Your task to perform on an android device: How far is the moon? Image 0: 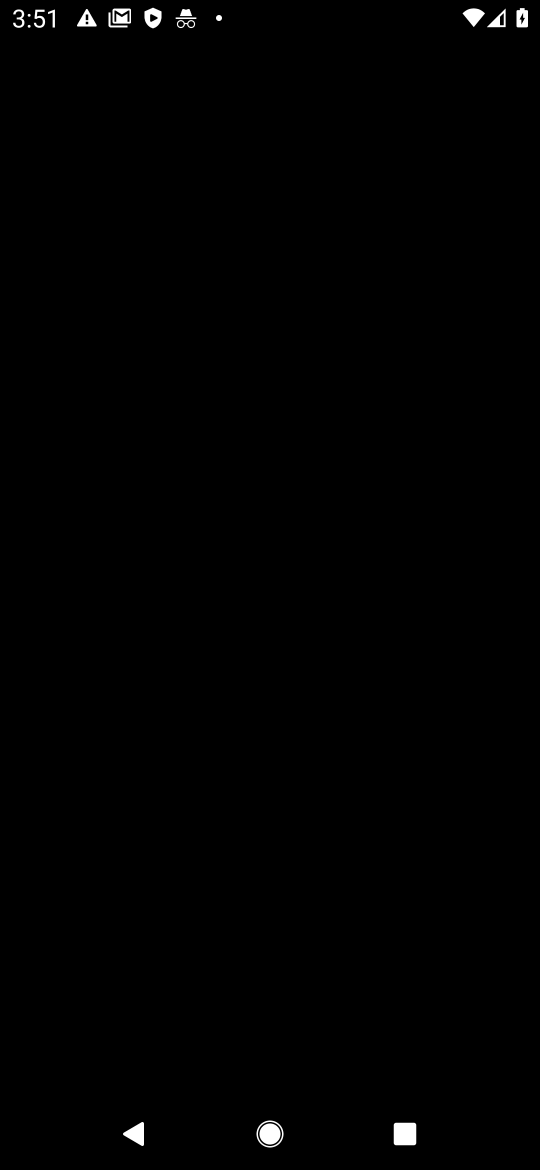
Step 0: press home button
Your task to perform on an android device: How far is the moon? Image 1: 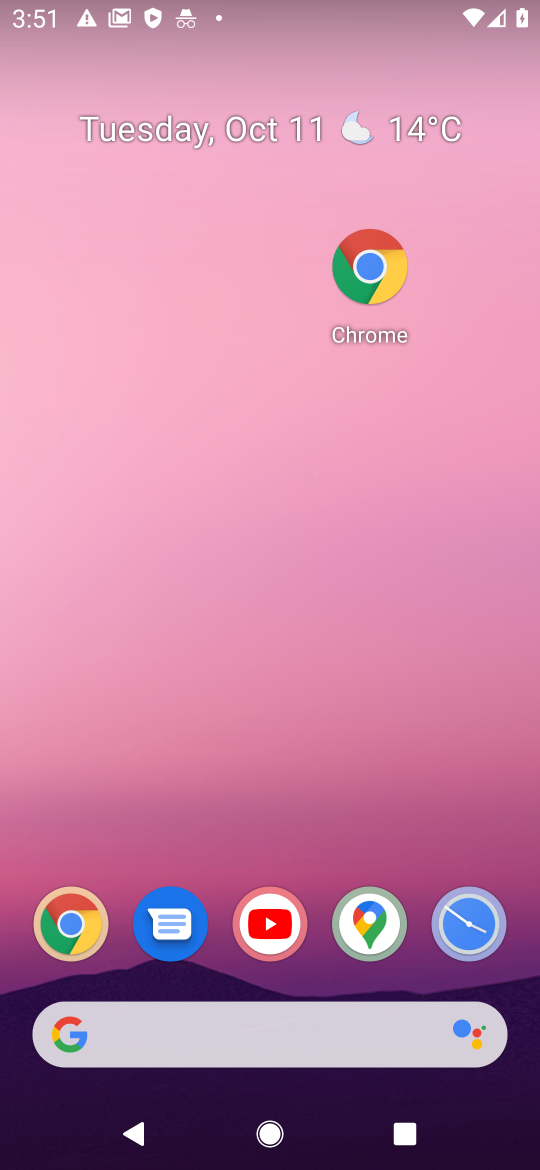
Step 1: click (80, 924)
Your task to perform on an android device: How far is the moon? Image 2: 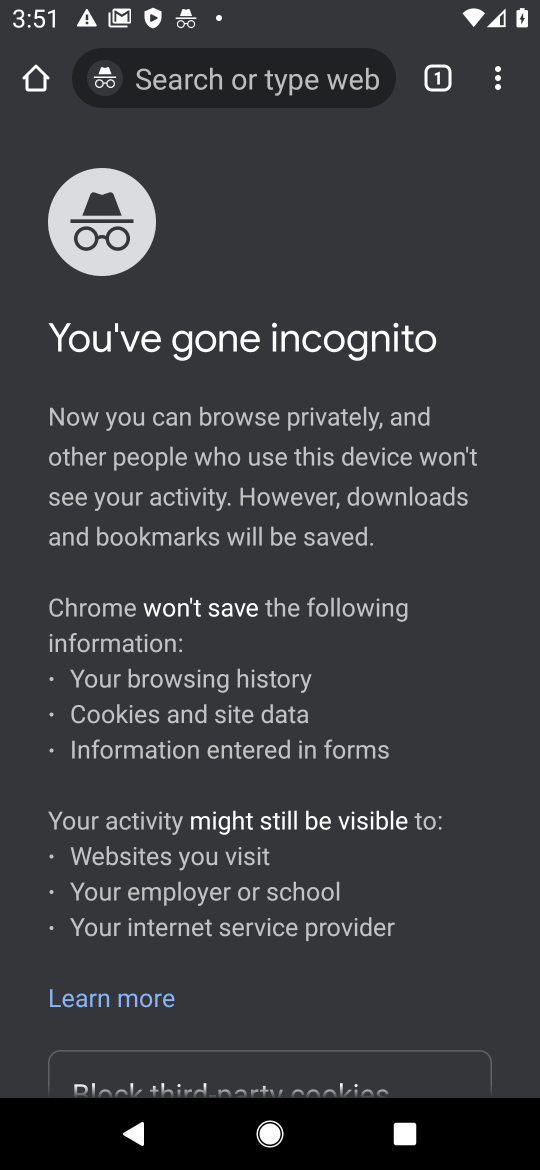
Step 2: click (171, 99)
Your task to perform on an android device: How far is the moon? Image 3: 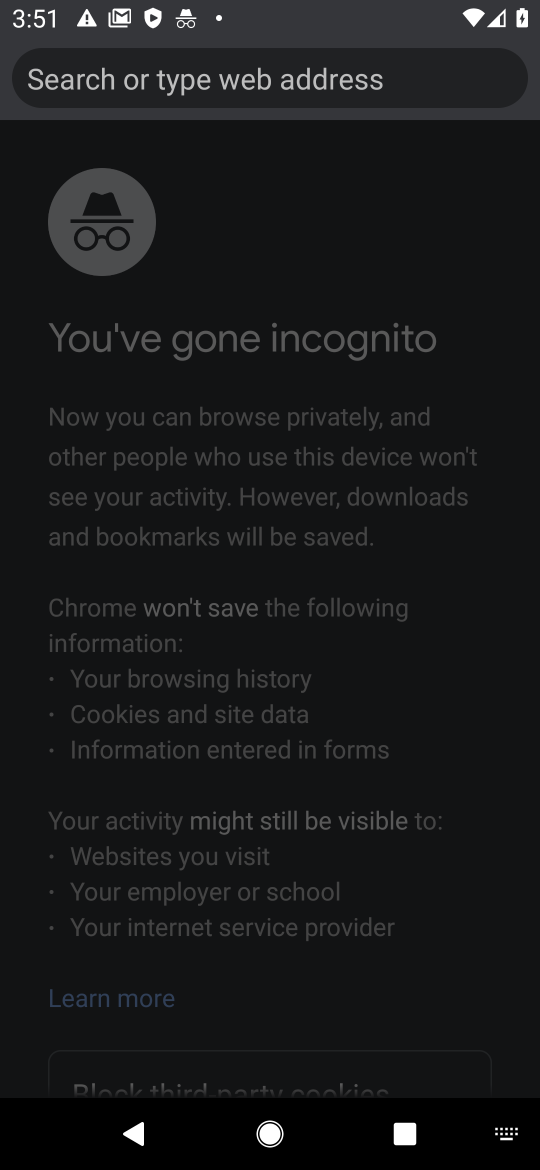
Step 3: type "how far is the moon"
Your task to perform on an android device: How far is the moon? Image 4: 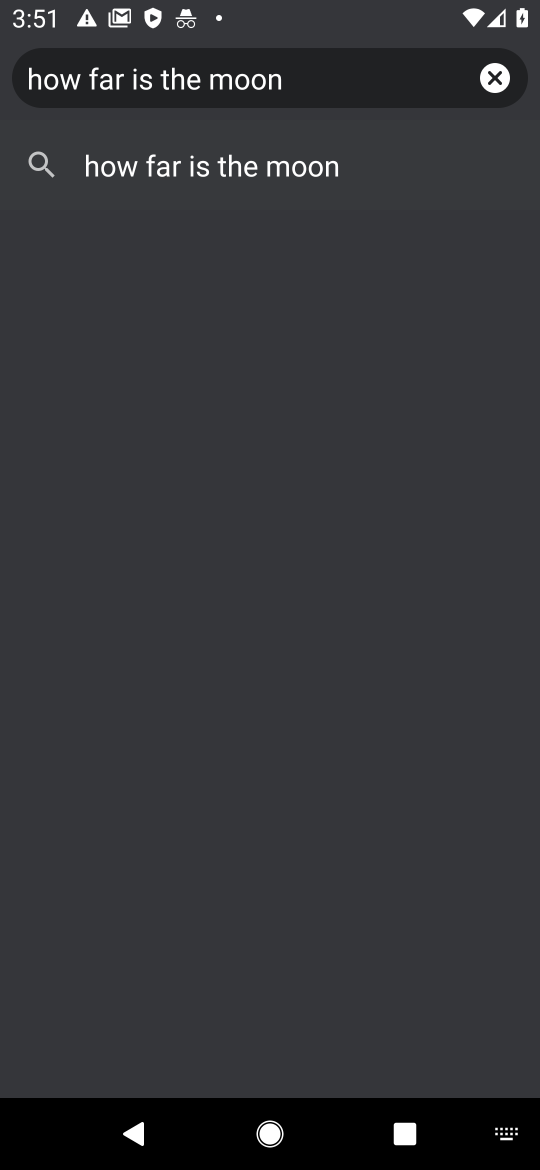
Step 4: click (240, 164)
Your task to perform on an android device: How far is the moon? Image 5: 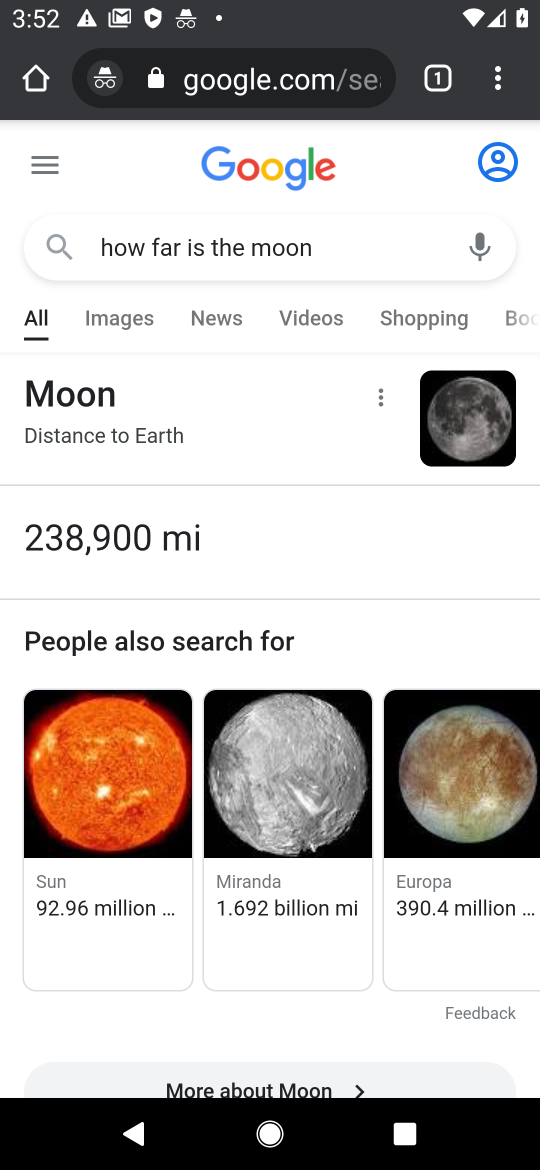
Step 5: task complete